Your task to perform on an android device: Add "razer blackwidow" to the cart on costco.com Image 0: 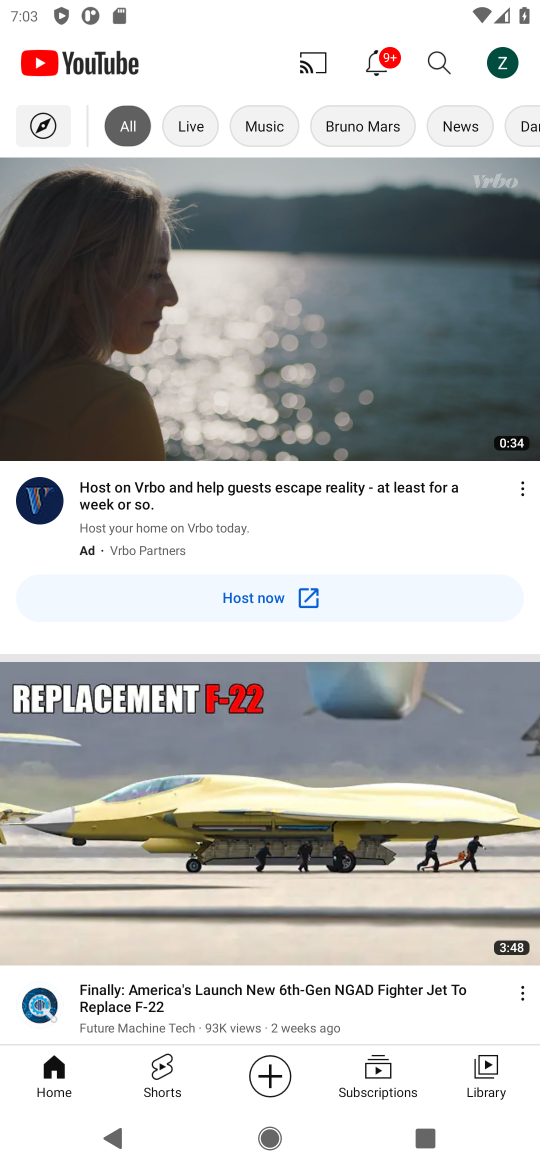
Step 0: press home button
Your task to perform on an android device: Add "razer blackwidow" to the cart on costco.com Image 1: 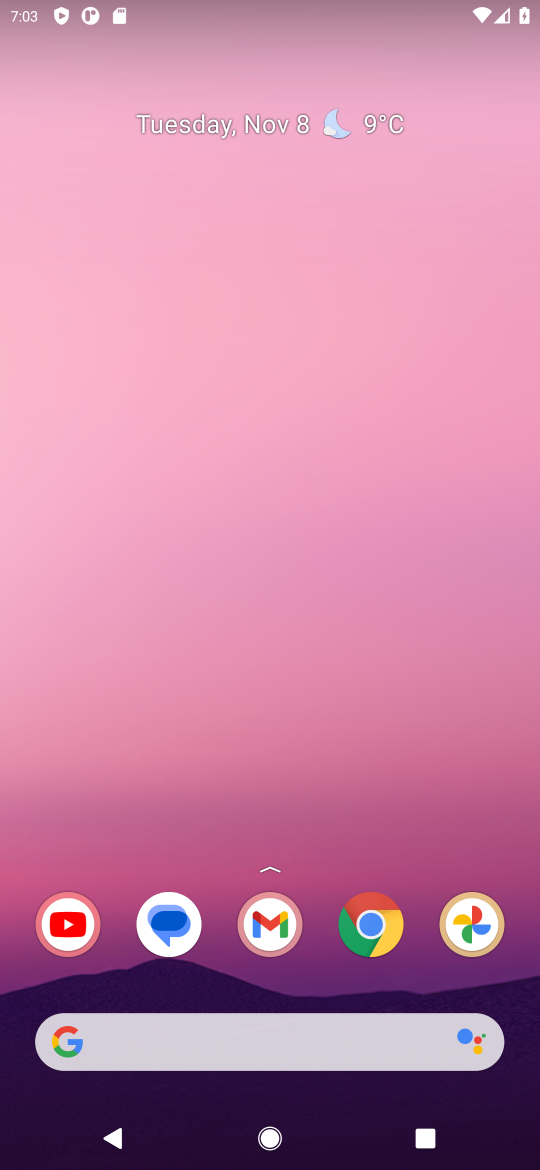
Step 1: click (269, 1054)
Your task to perform on an android device: Add "razer blackwidow" to the cart on costco.com Image 2: 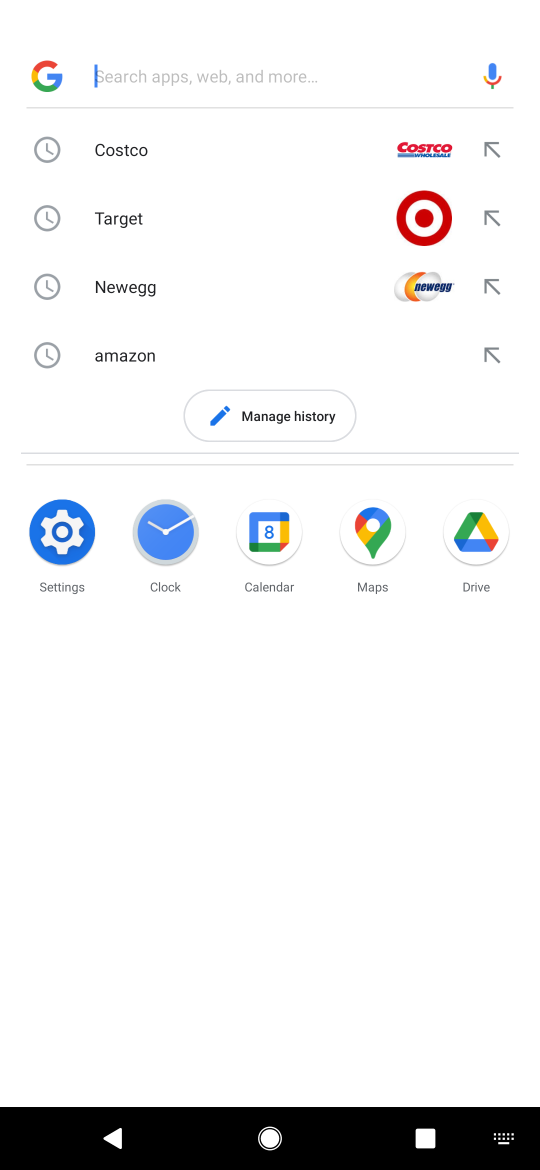
Step 2: click (269, 155)
Your task to perform on an android device: Add "razer blackwidow" to the cart on costco.com Image 3: 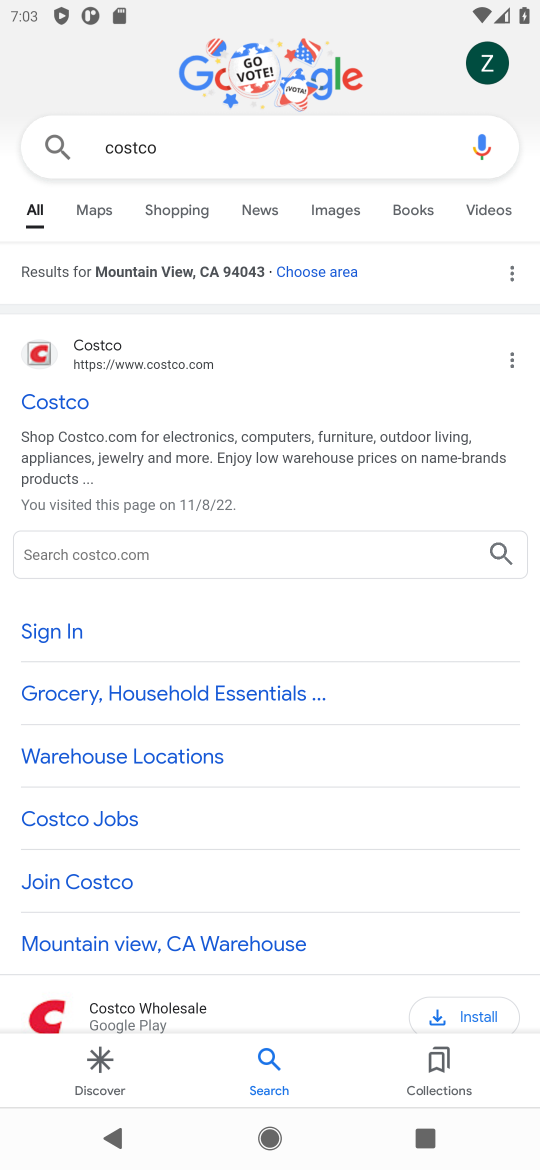
Step 3: click (86, 342)
Your task to perform on an android device: Add "razer blackwidow" to the cart on costco.com Image 4: 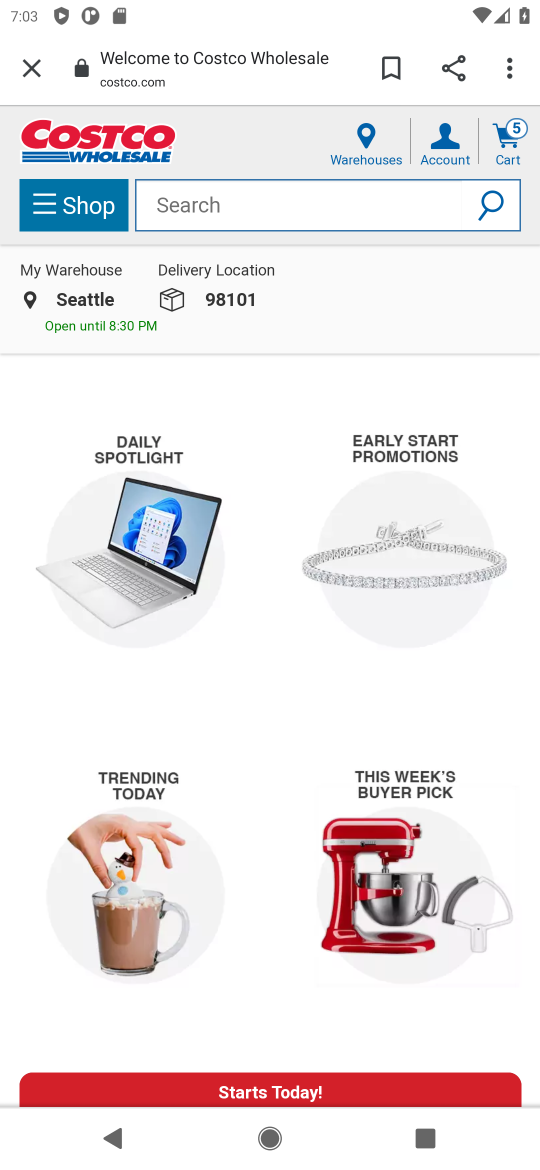
Step 4: click (288, 187)
Your task to perform on an android device: Add "razer blackwidow" to the cart on costco.com Image 5: 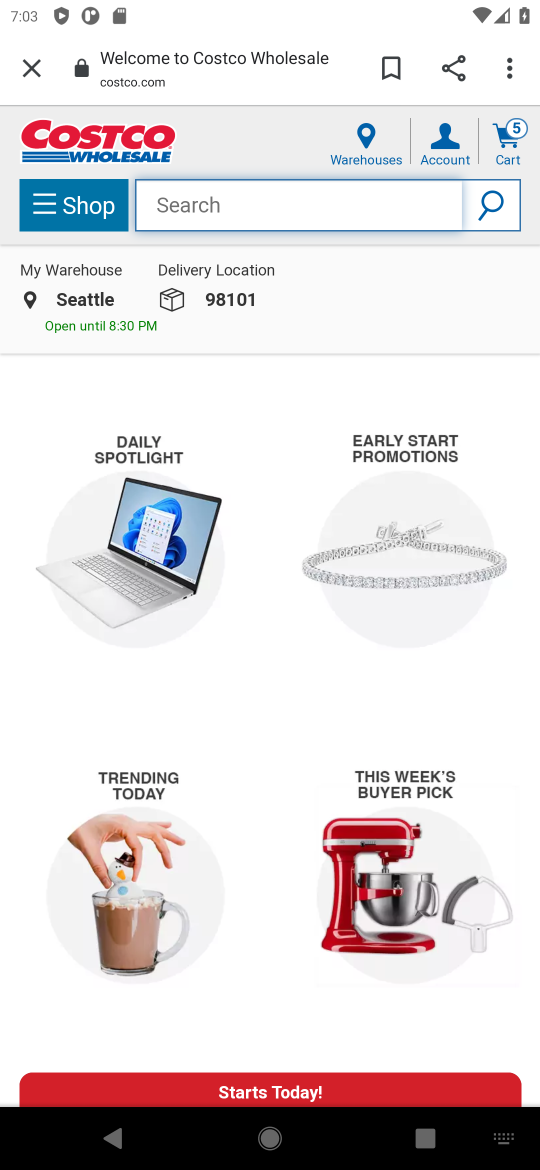
Step 5: type "razer blackwidow"
Your task to perform on an android device: Add "razer blackwidow" to the cart on costco.com Image 6: 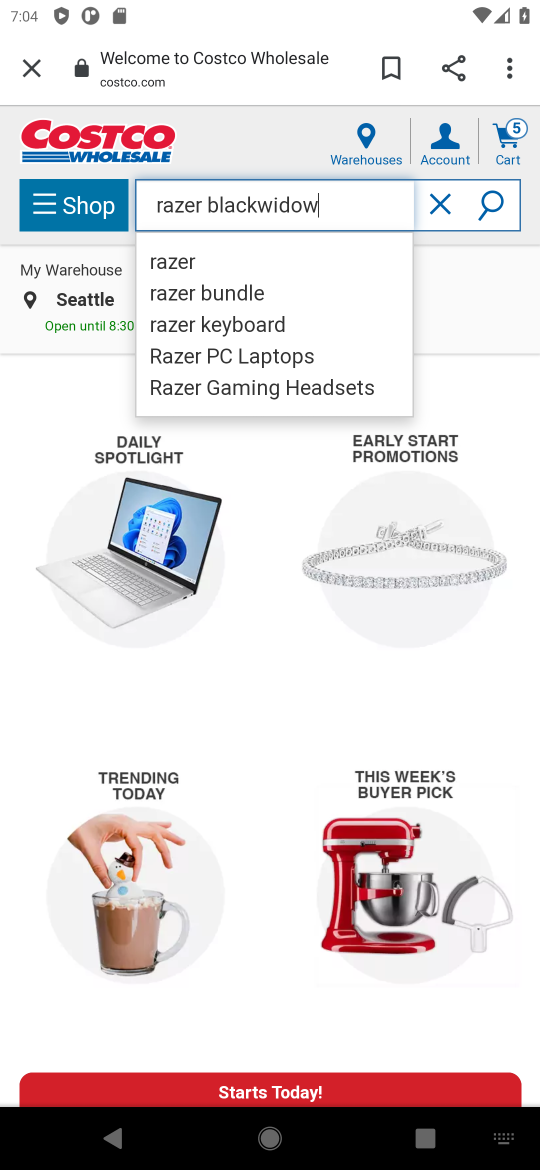
Step 6: click (501, 201)
Your task to perform on an android device: Add "razer blackwidow" to the cart on costco.com Image 7: 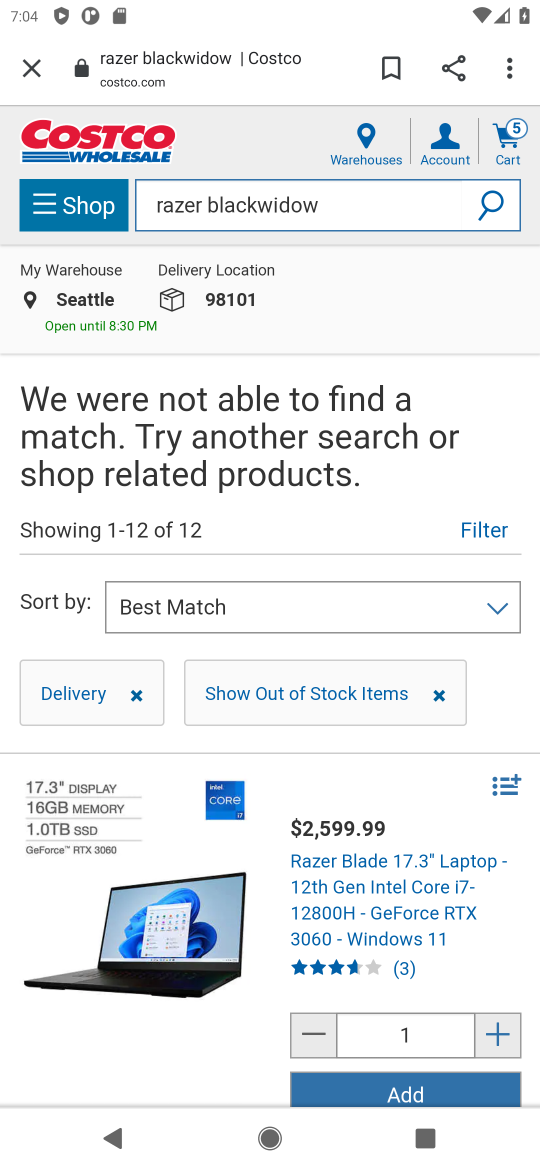
Step 7: drag from (421, 905) to (421, 666)
Your task to perform on an android device: Add "razer blackwidow" to the cart on costco.com Image 8: 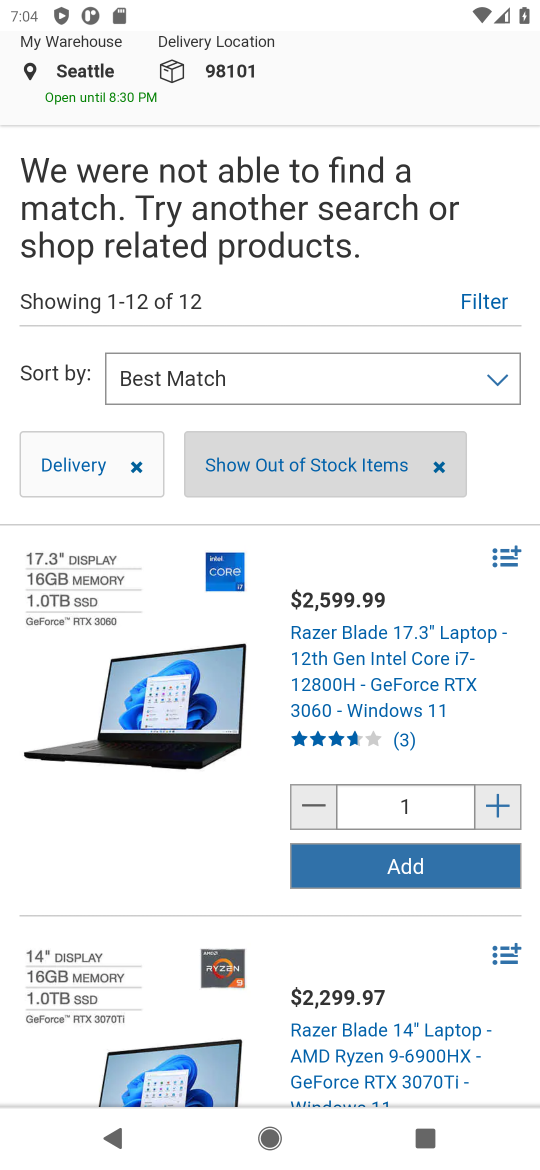
Step 8: click (400, 867)
Your task to perform on an android device: Add "razer blackwidow" to the cart on costco.com Image 9: 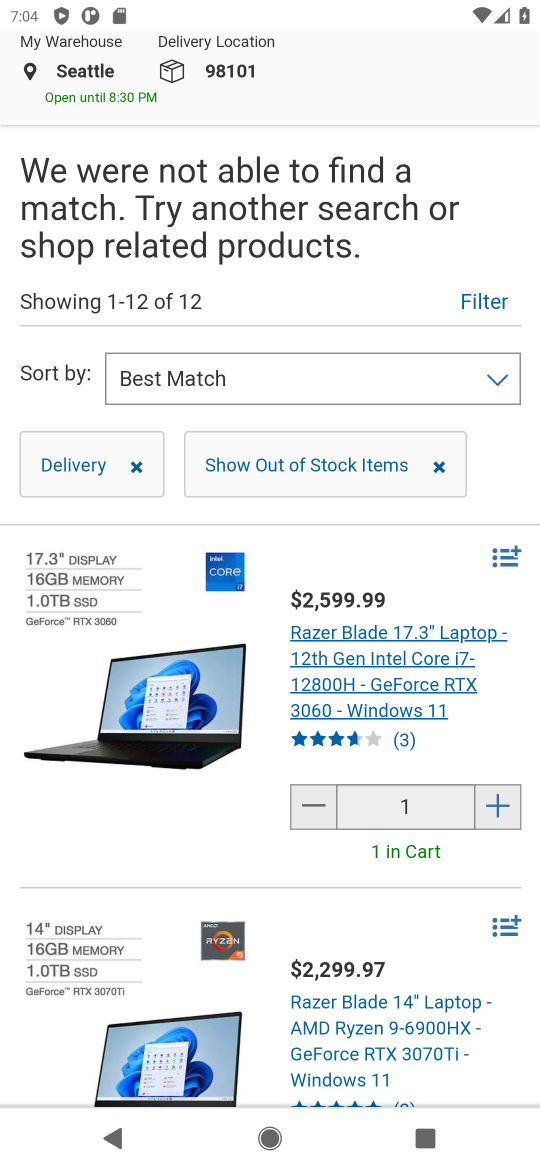
Step 9: task complete